Your task to perform on an android device: clear history in the chrome app Image 0: 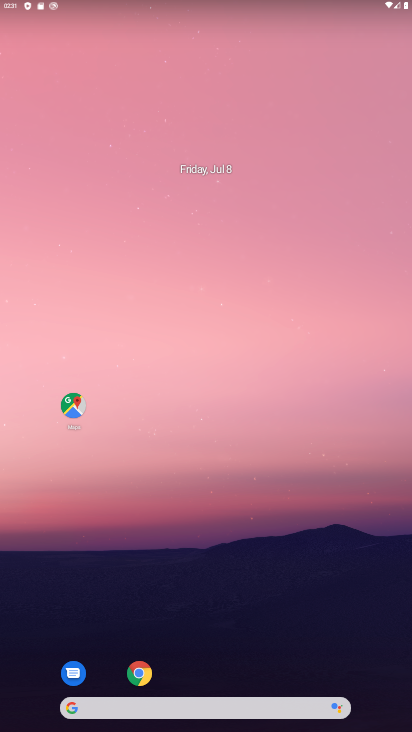
Step 0: drag from (269, 653) to (270, 0)
Your task to perform on an android device: clear history in the chrome app Image 1: 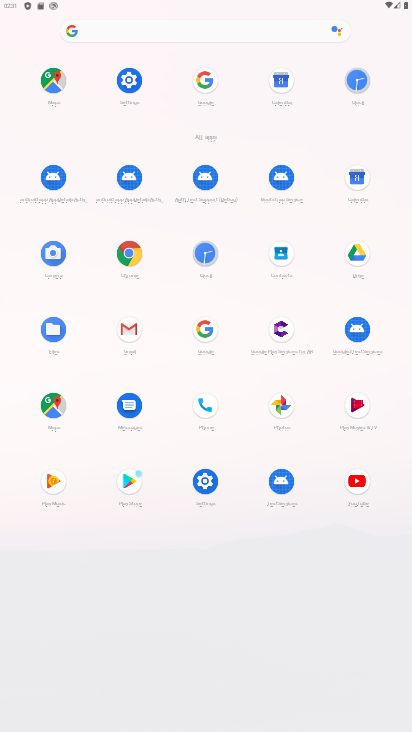
Step 1: click (127, 252)
Your task to perform on an android device: clear history in the chrome app Image 2: 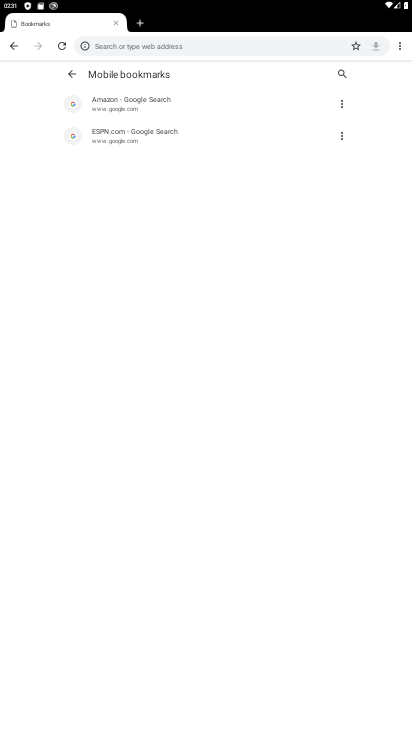
Step 2: drag from (398, 45) to (289, 146)
Your task to perform on an android device: clear history in the chrome app Image 3: 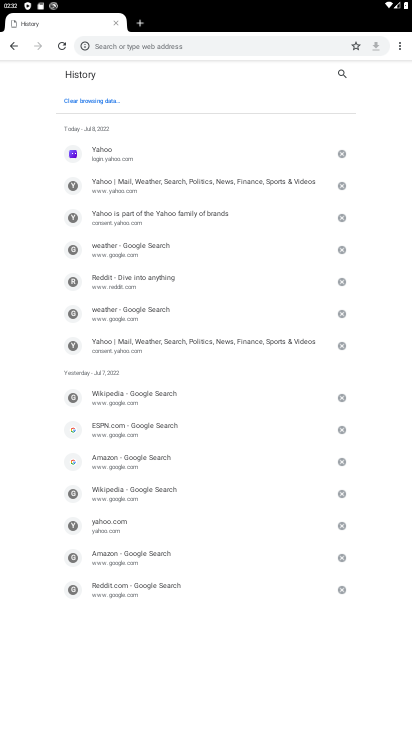
Step 3: click (63, 98)
Your task to perform on an android device: clear history in the chrome app Image 4: 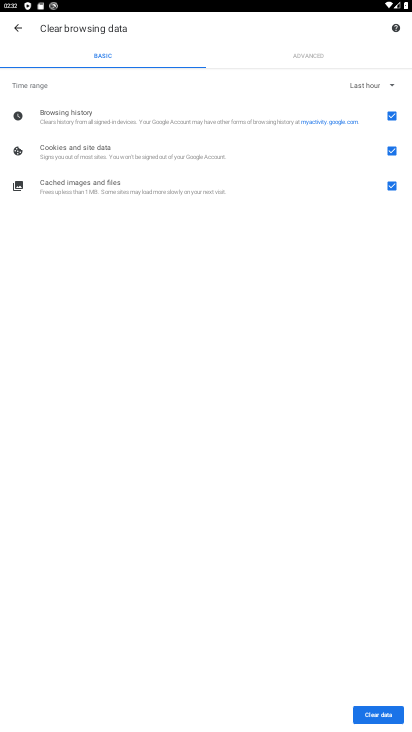
Step 4: click (387, 719)
Your task to perform on an android device: clear history in the chrome app Image 5: 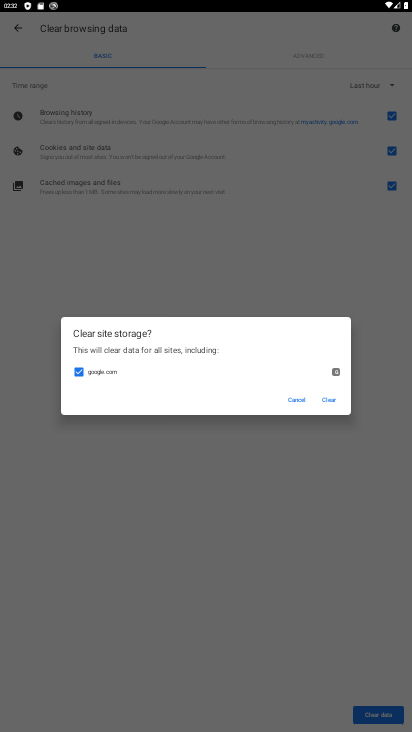
Step 5: click (330, 394)
Your task to perform on an android device: clear history in the chrome app Image 6: 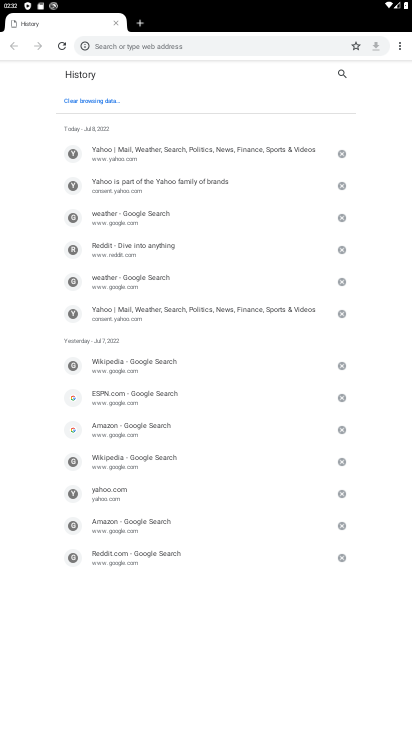
Step 6: click (93, 91)
Your task to perform on an android device: clear history in the chrome app Image 7: 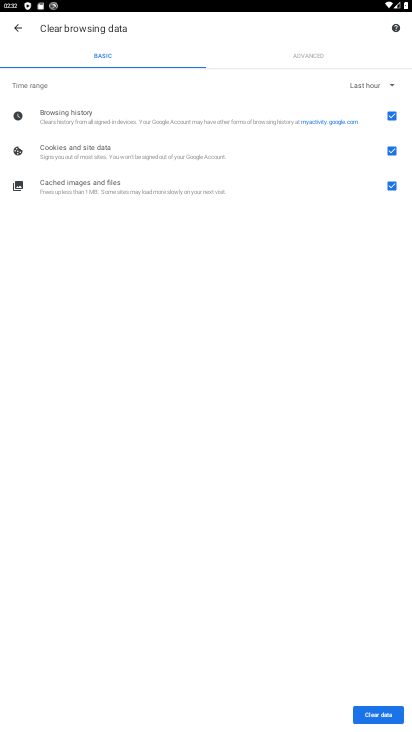
Step 7: click (357, 87)
Your task to perform on an android device: clear history in the chrome app Image 8: 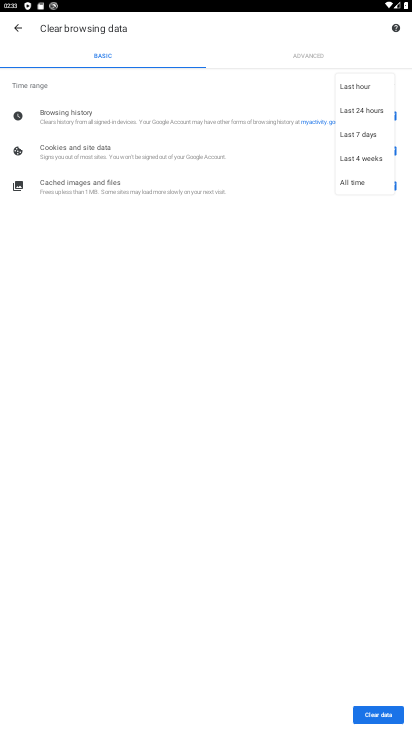
Step 8: click (344, 194)
Your task to perform on an android device: clear history in the chrome app Image 9: 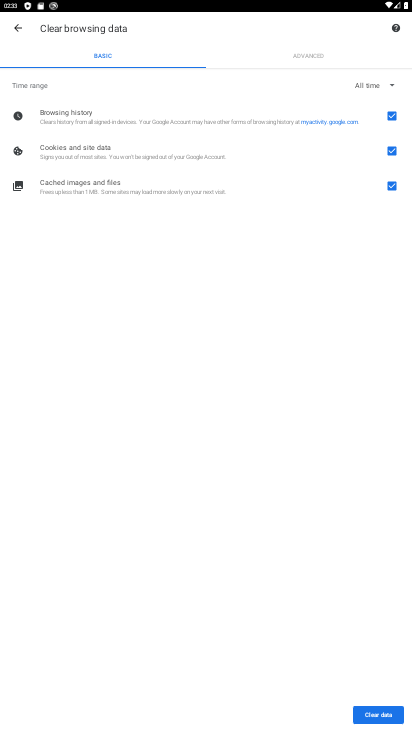
Step 9: click (376, 717)
Your task to perform on an android device: clear history in the chrome app Image 10: 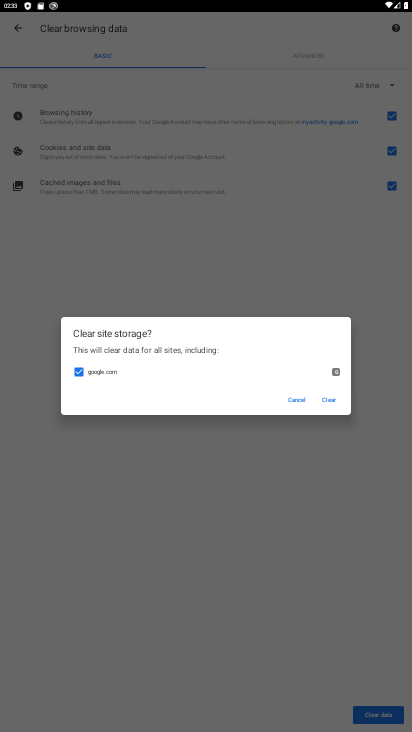
Step 10: click (324, 404)
Your task to perform on an android device: clear history in the chrome app Image 11: 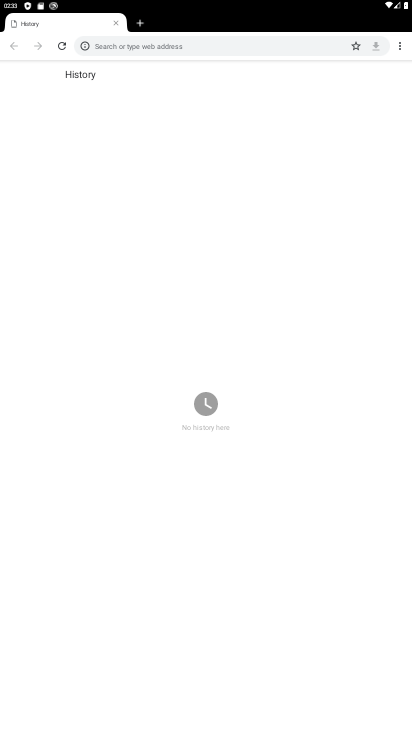
Step 11: task complete